Your task to perform on an android device: change the upload size in google photos Image 0: 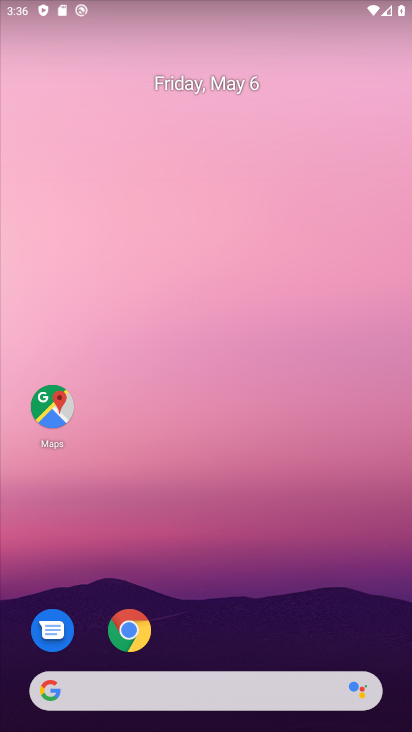
Step 0: drag from (189, 566) to (230, 166)
Your task to perform on an android device: change the upload size in google photos Image 1: 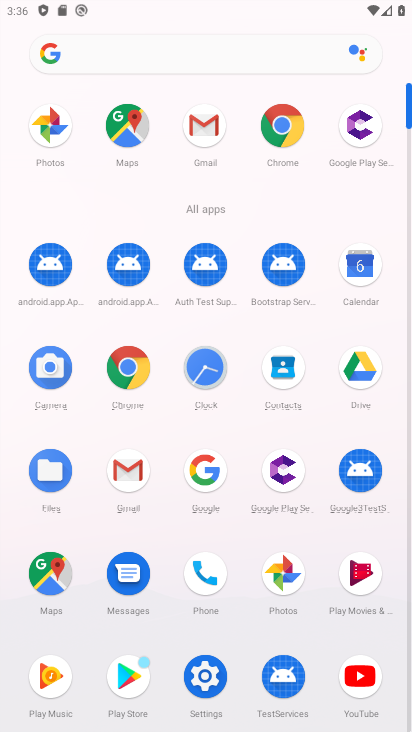
Step 1: click (284, 588)
Your task to perform on an android device: change the upload size in google photos Image 2: 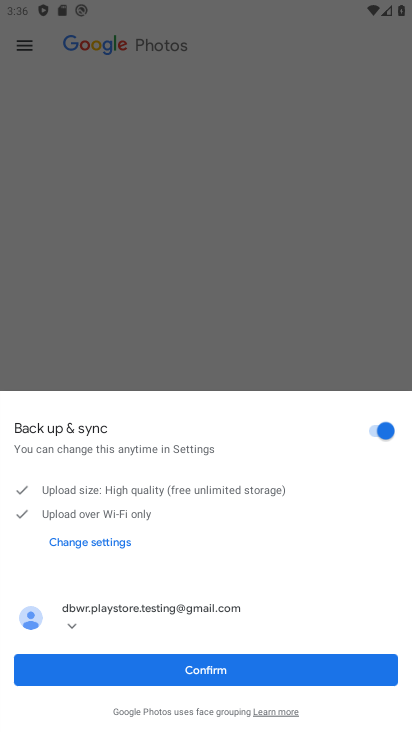
Step 2: click (205, 672)
Your task to perform on an android device: change the upload size in google photos Image 3: 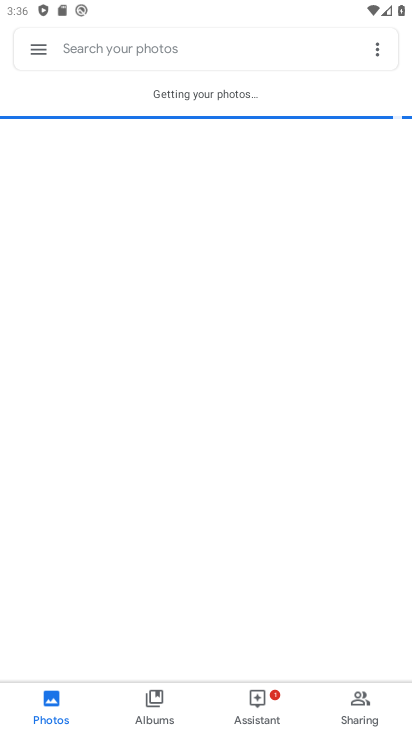
Step 3: click (37, 58)
Your task to perform on an android device: change the upload size in google photos Image 4: 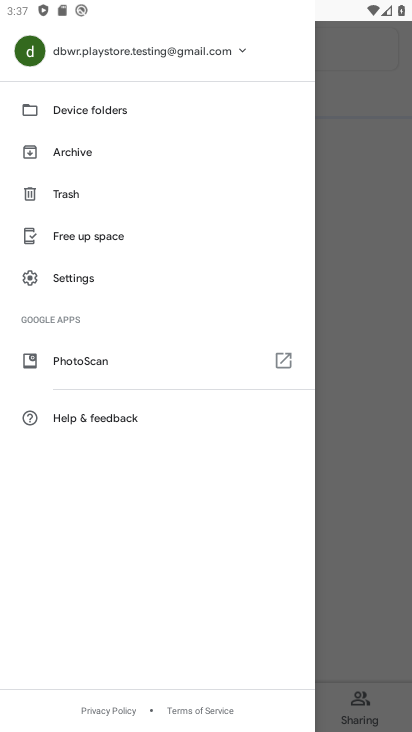
Step 4: click (77, 272)
Your task to perform on an android device: change the upload size in google photos Image 5: 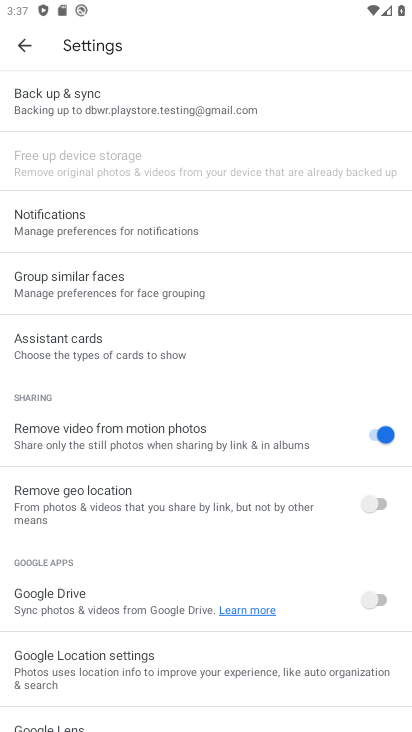
Step 5: click (141, 109)
Your task to perform on an android device: change the upload size in google photos Image 6: 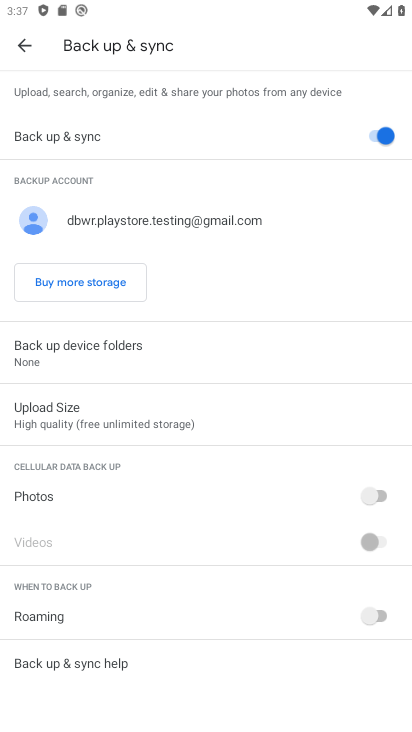
Step 6: click (80, 428)
Your task to perform on an android device: change the upload size in google photos Image 7: 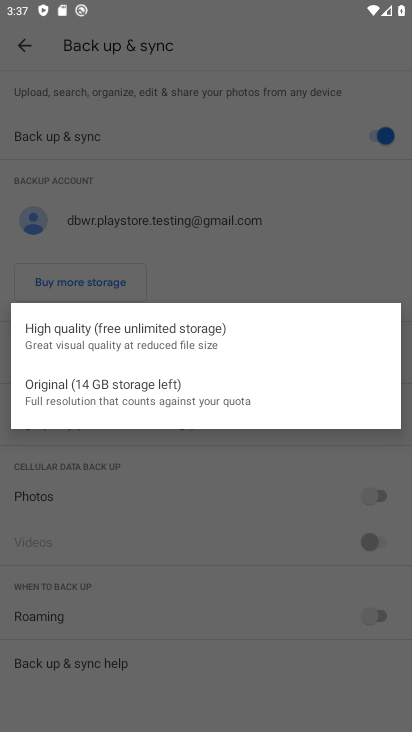
Step 7: click (94, 394)
Your task to perform on an android device: change the upload size in google photos Image 8: 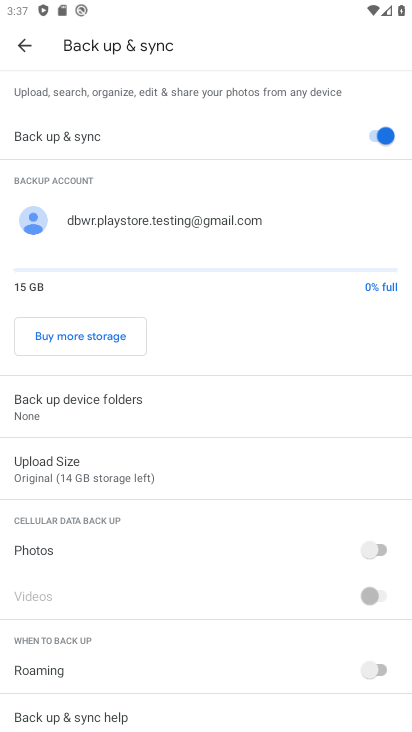
Step 8: task complete